Your task to perform on an android device: Open location settings Image 0: 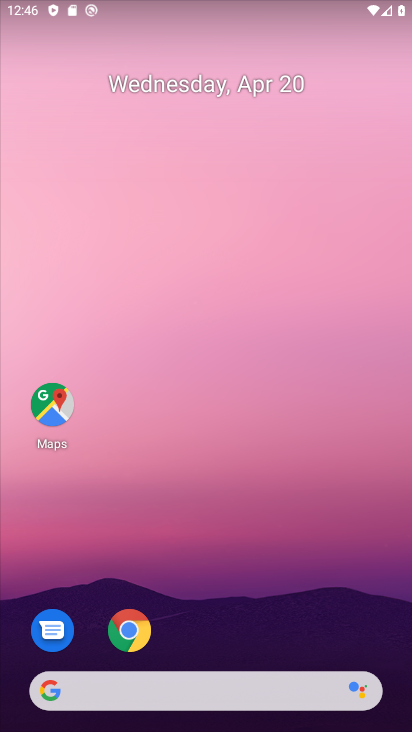
Step 0: drag from (363, 593) to (343, 168)
Your task to perform on an android device: Open location settings Image 1: 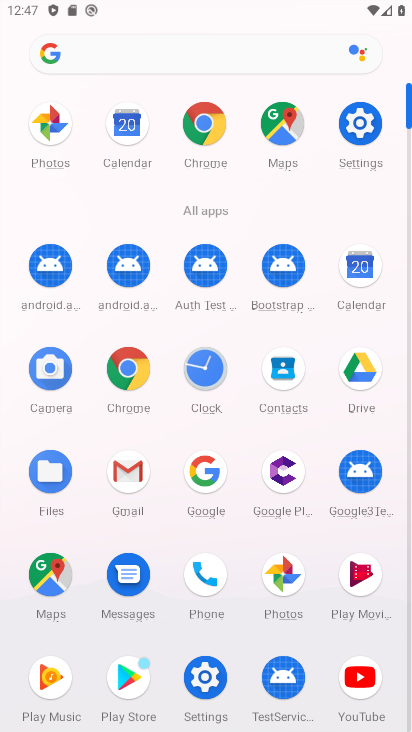
Step 1: click (374, 137)
Your task to perform on an android device: Open location settings Image 2: 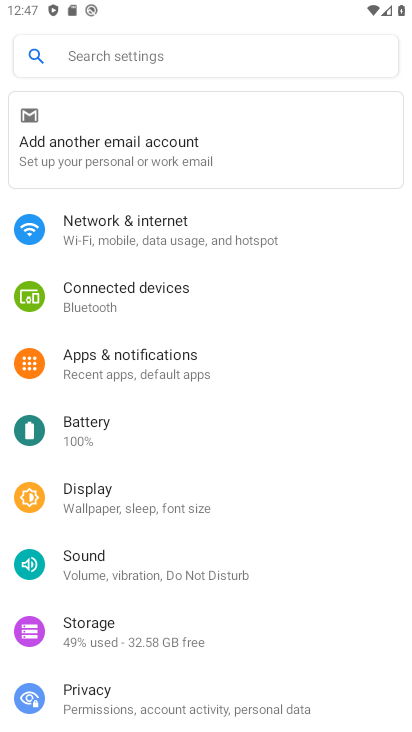
Step 2: drag from (298, 522) to (283, 303)
Your task to perform on an android device: Open location settings Image 3: 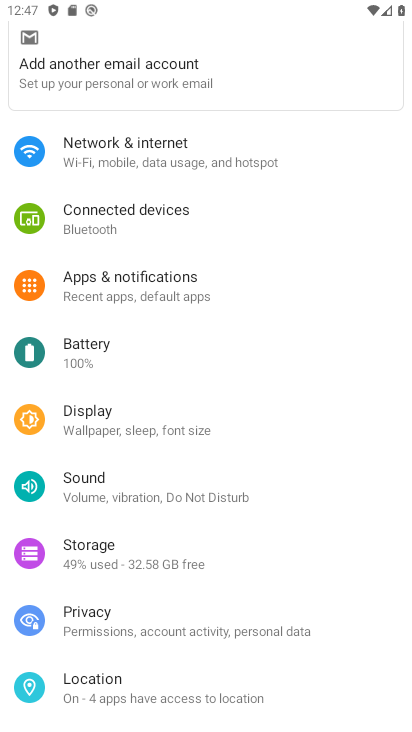
Step 3: drag from (295, 597) to (280, 334)
Your task to perform on an android device: Open location settings Image 4: 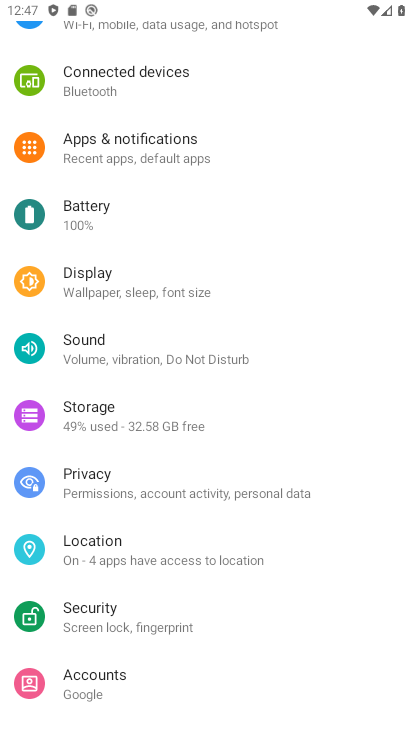
Step 4: click (256, 556)
Your task to perform on an android device: Open location settings Image 5: 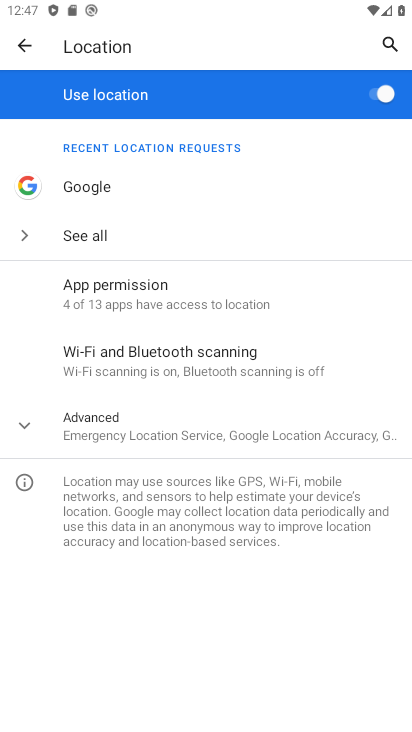
Step 5: click (231, 432)
Your task to perform on an android device: Open location settings Image 6: 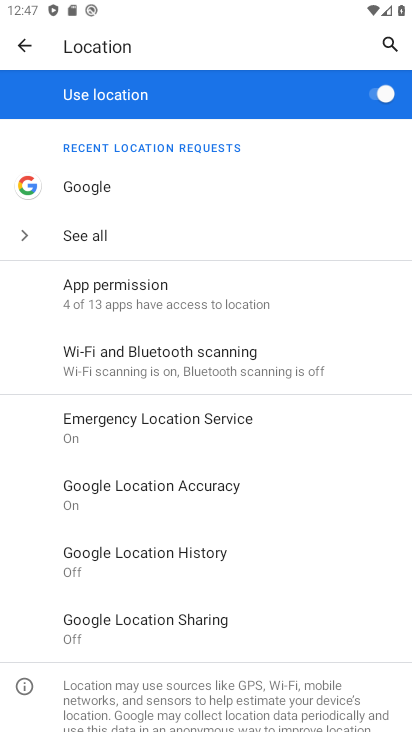
Step 6: task complete